Your task to perform on an android device: Go to notification settings Image 0: 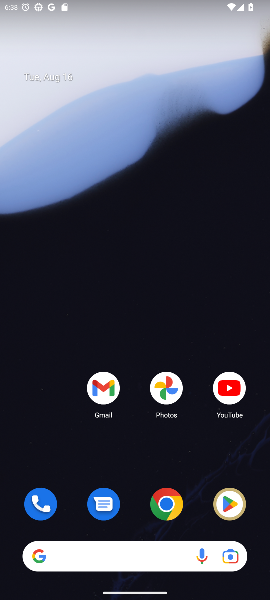
Step 0: drag from (19, 574) to (204, 171)
Your task to perform on an android device: Go to notification settings Image 1: 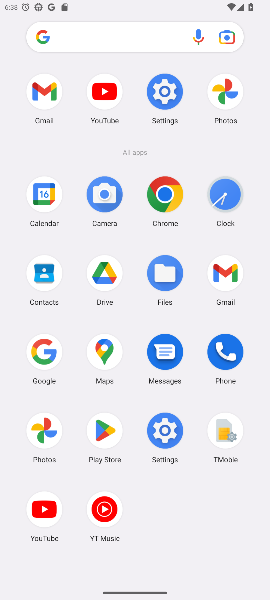
Step 1: click (163, 435)
Your task to perform on an android device: Go to notification settings Image 2: 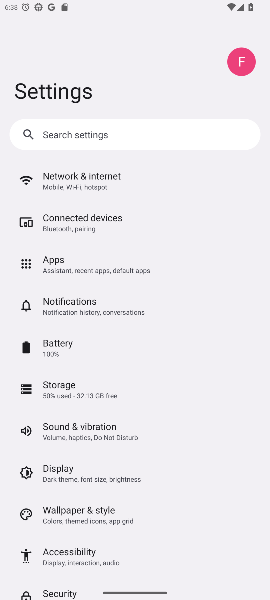
Step 2: click (70, 307)
Your task to perform on an android device: Go to notification settings Image 3: 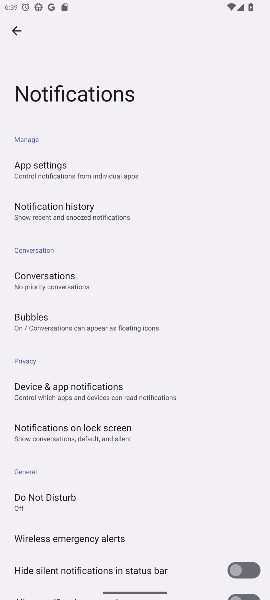
Step 3: task complete